Your task to perform on an android device: check the backup settings in the google photos Image 0: 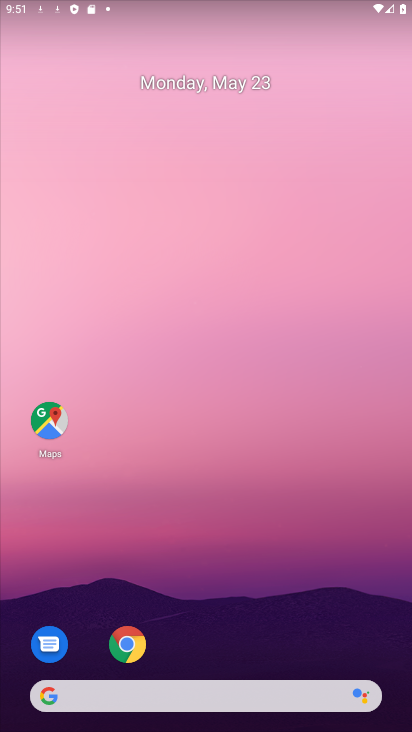
Step 0: drag from (290, 711) to (171, 169)
Your task to perform on an android device: check the backup settings in the google photos Image 1: 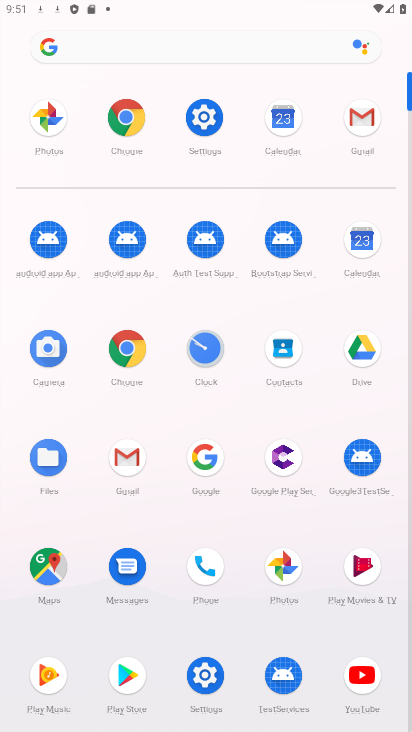
Step 1: click (279, 574)
Your task to perform on an android device: check the backup settings in the google photos Image 2: 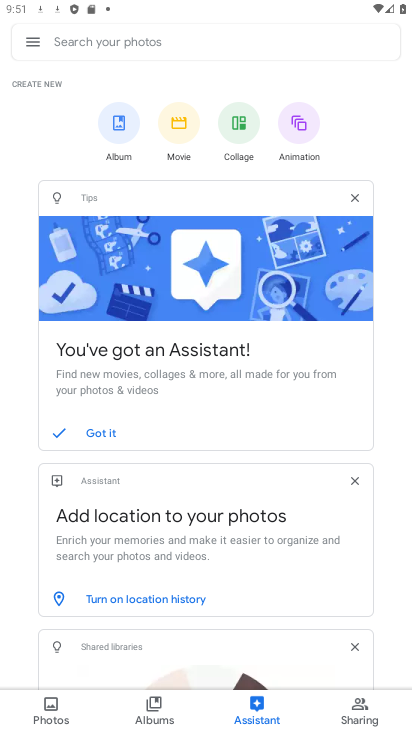
Step 2: click (36, 40)
Your task to perform on an android device: check the backup settings in the google photos Image 3: 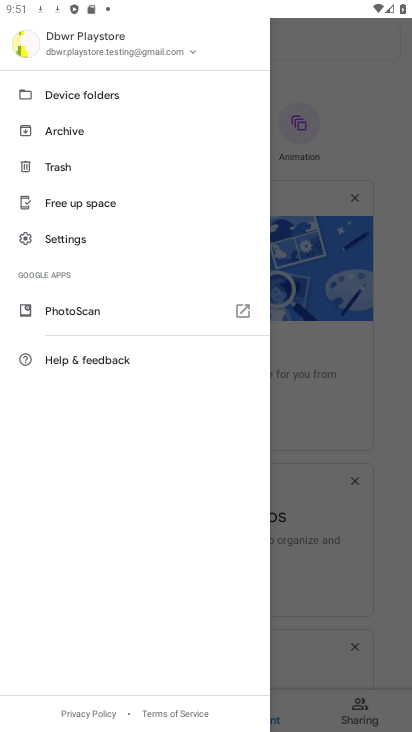
Step 3: click (75, 237)
Your task to perform on an android device: check the backup settings in the google photos Image 4: 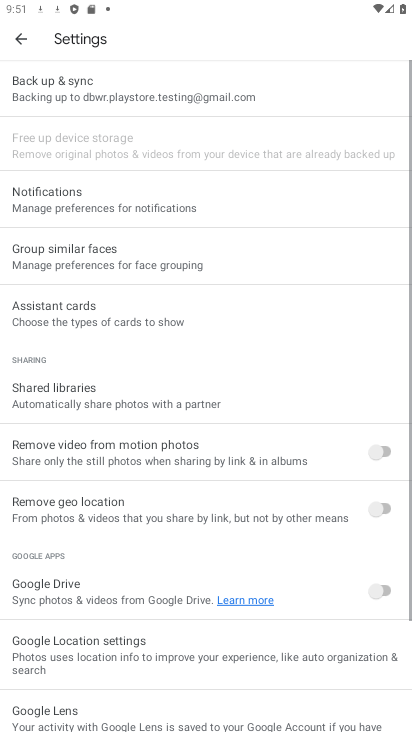
Step 4: click (111, 85)
Your task to perform on an android device: check the backup settings in the google photos Image 5: 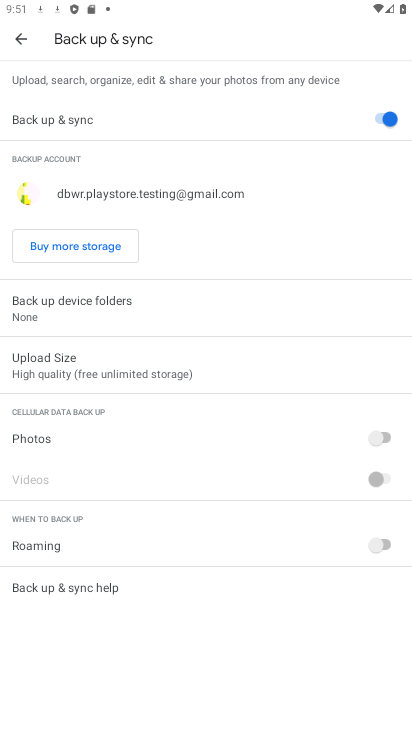
Step 5: task complete